Your task to perform on an android device: turn vacation reply on in the gmail app Image 0: 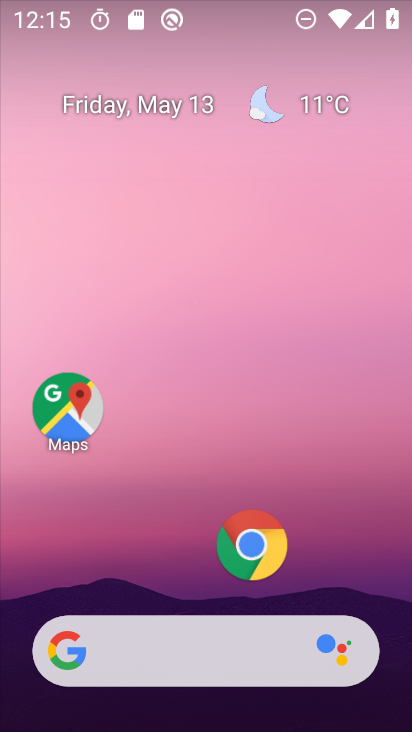
Step 0: drag from (195, 592) to (202, 82)
Your task to perform on an android device: turn vacation reply on in the gmail app Image 1: 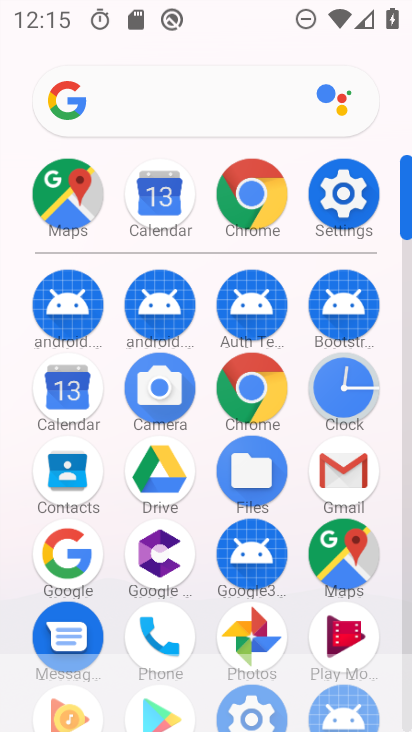
Step 1: click (339, 466)
Your task to perform on an android device: turn vacation reply on in the gmail app Image 2: 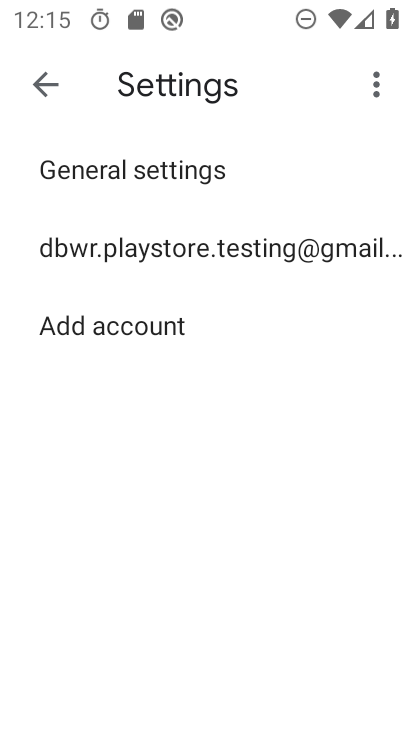
Step 2: click (213, 246)
Your task to perform on an android device: turn vacation reply on in the gmail app Image 3: 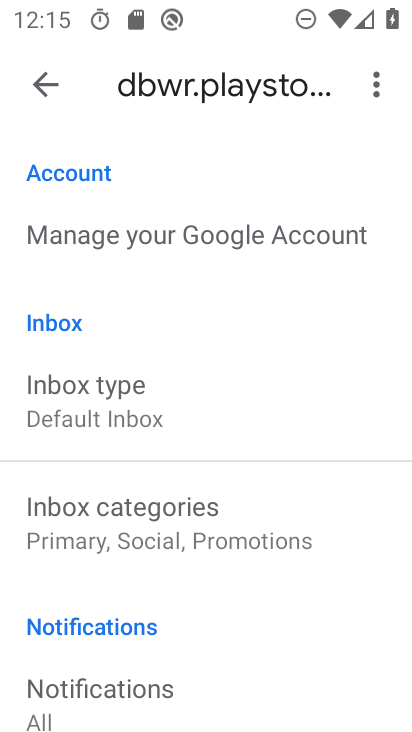
Step 3: drag from (197, 618) to (217, 84)
Your task to perform on an android device: turn vacation reply on in the gmail app Image 4: 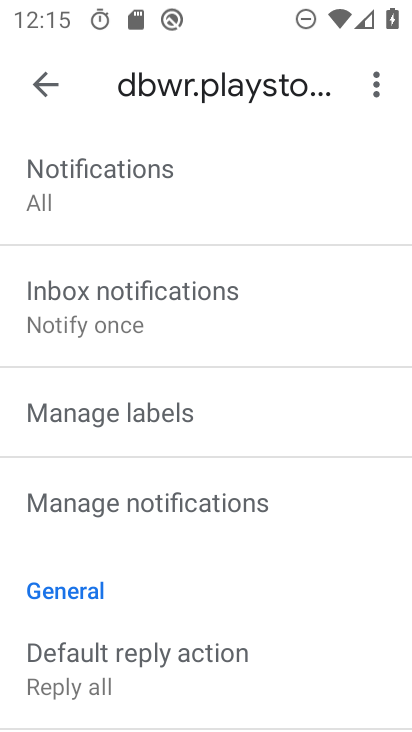
Step 4: drag from (187, 690) to (243, 102)
Your task to perform on an android device: turn vacation reply on in the gmail app Image 5: 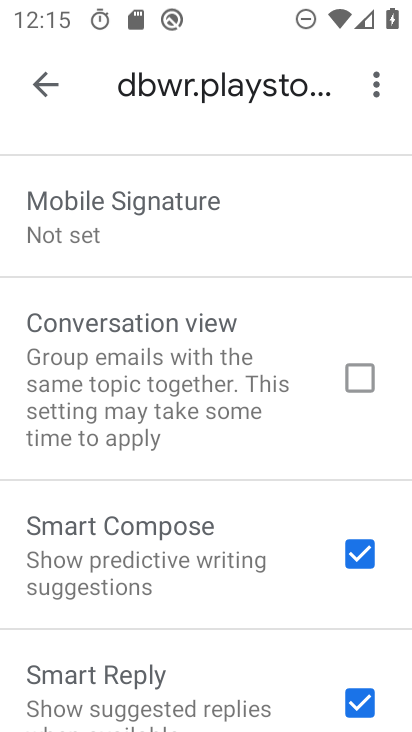
Step 5: drag from (195, 665) to (183, 185)
Your task to perform on an android device: turn vacation reply on in the gmail app Image 6: 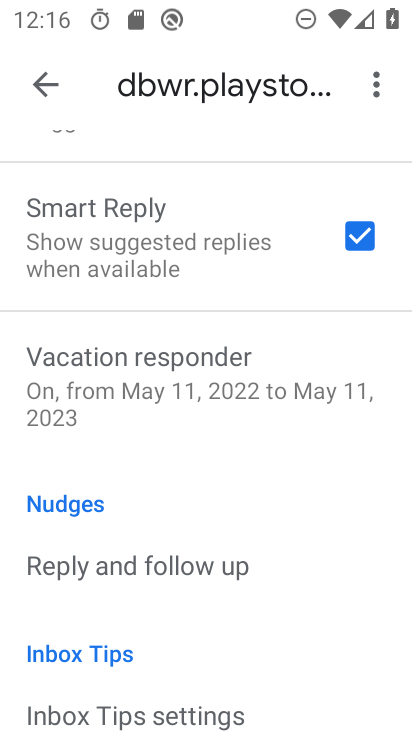
Step 6: click (182, 383)
Your task to perform on an android device: turn vacation reply on in the gmail app Image 7: 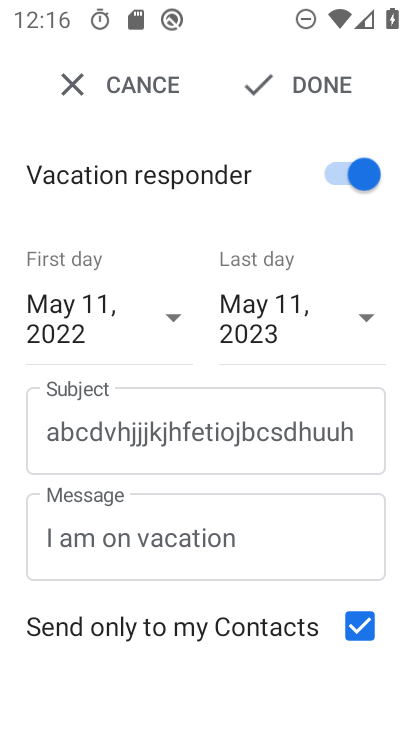
Step 7: task complete